Your task to perform on an android device: Check the weather Image 0: 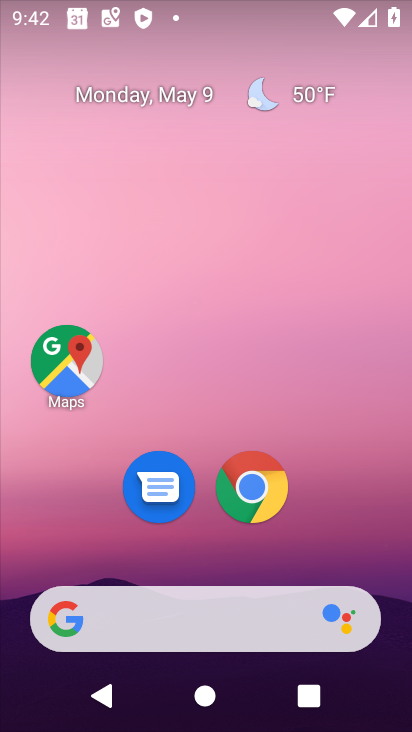
Step 0: click (107, 609)
Your task to perform on an android device: Check the weather Image 1: 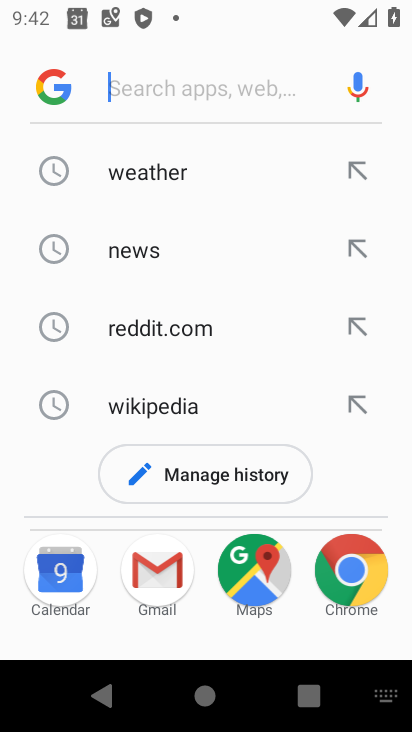
Step 1: click (162, 176)
Your task to perform on an android device: Check the weather Image 2: 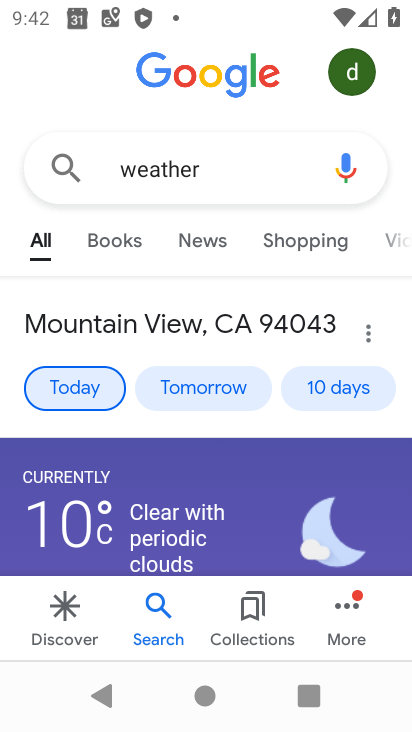
Step 2: task complete